Your task to perform on an android device: turn off notifications settings in the gmail app Image 0: 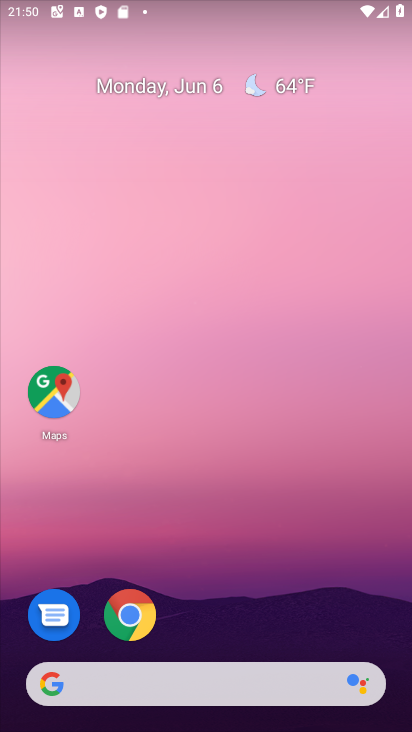
Step 0: drag from (380, 616) to (340, 39)
Your task to perform on an android device: turn off notifications settings in the gmail app Image 1: 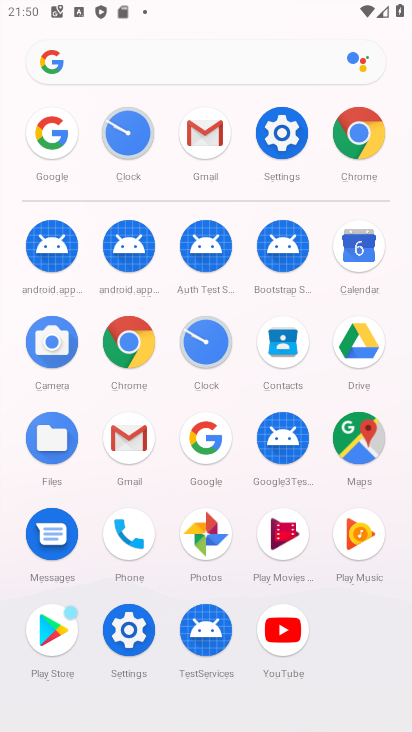
Step 1: click (208, 146)
Your task to perform on an android device: turn off notifications settings in the gmail app Image 2: 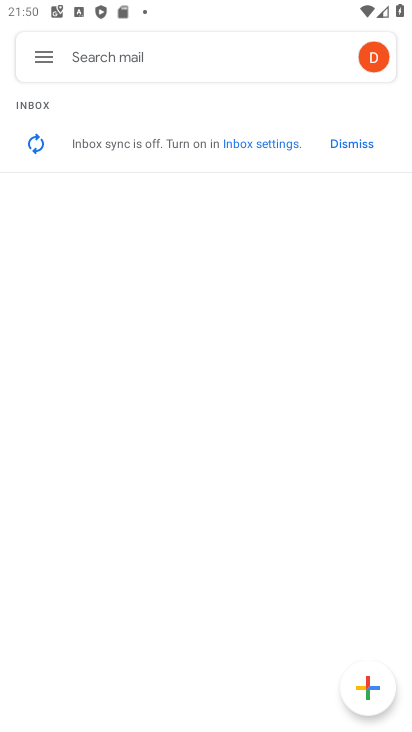
Step 2: click (38, 55)
Your task to perform on an android device: turn off notifications settings in the gmail app Image 3: 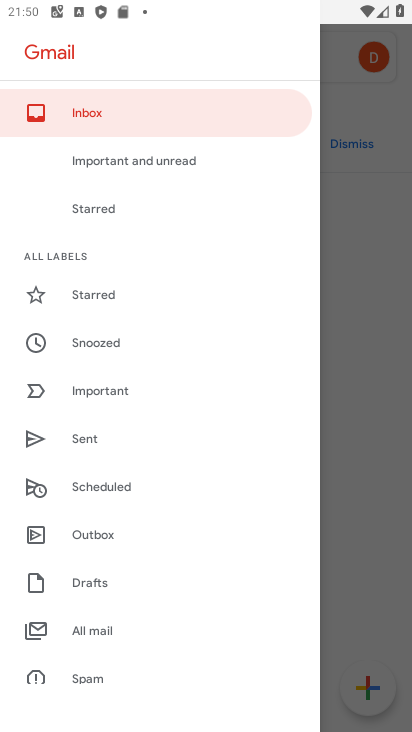
Step 3: drag from (189, 675) to (191, 104)
Your task to perform on an android device: turn off notifications settings in the gmail app Image 4: 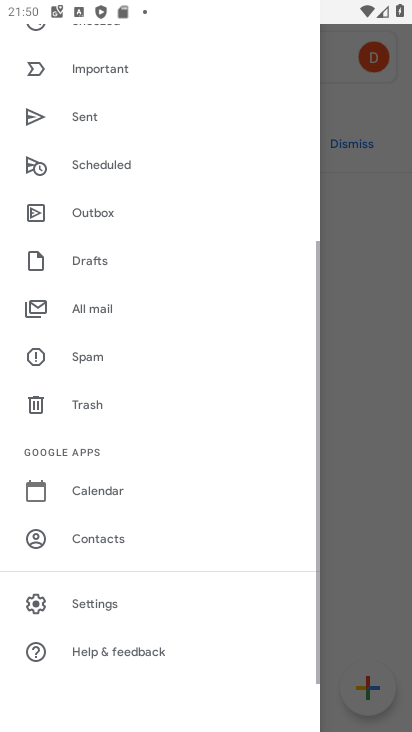
Step 4: click (104, 599)
Your task to perform on an android device: turn off notifications settings in the gmail app Image 5: 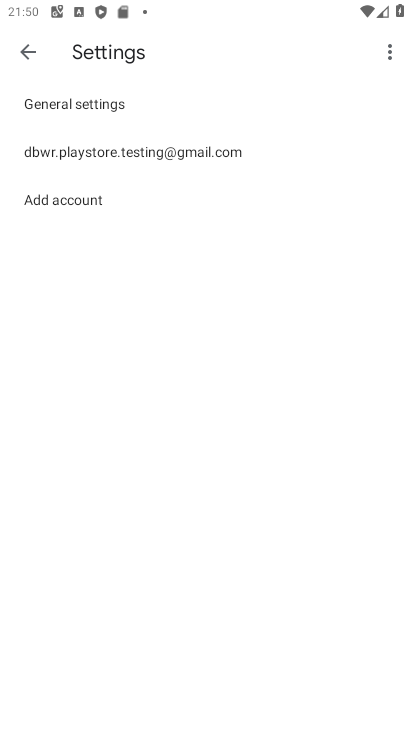
Step 5: click (64, 151)
Your task to perform on an android device: turn off notifications settings in the gmail app Image 6: 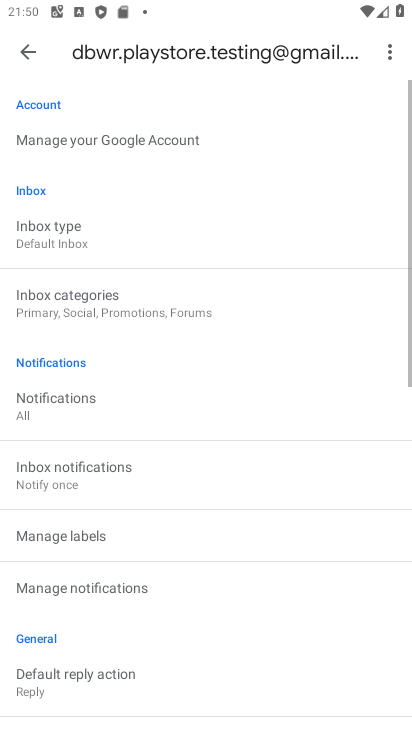
Step 6: click (25, 53)
Your task to perform on an android device: turn off notifications settings in the gmail app Image 7: 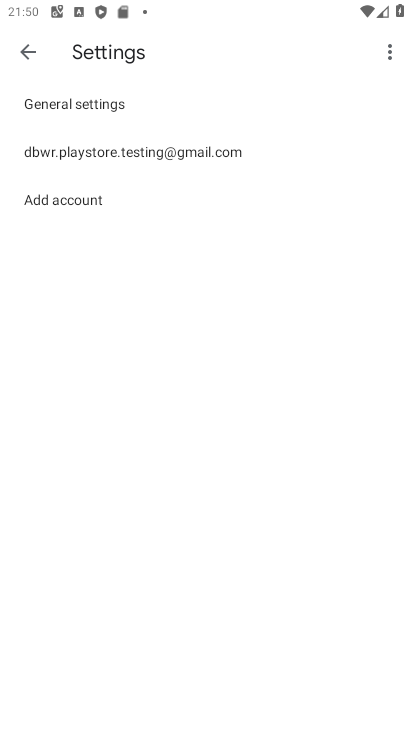
Step 7: click (56, 109)
Your task to perform on an android device: turn off notifications settings in the gmail app Image 8: 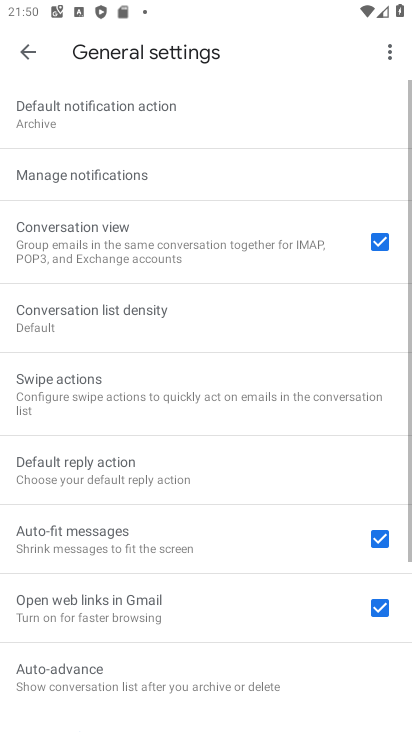
Step 8: click (82, 180)
Your task to perform on an android device: turn off notifications settings in the gmail app Image 9: 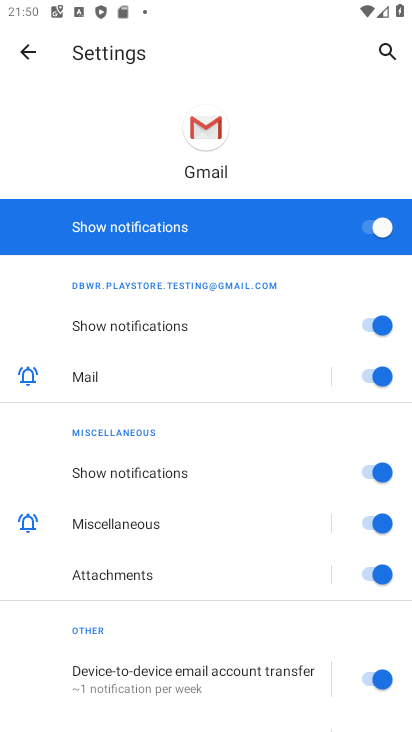
Step 9: click (363, 227)
Your task to perform on an android device: turn off notifications settings in the gmail app Image 10: 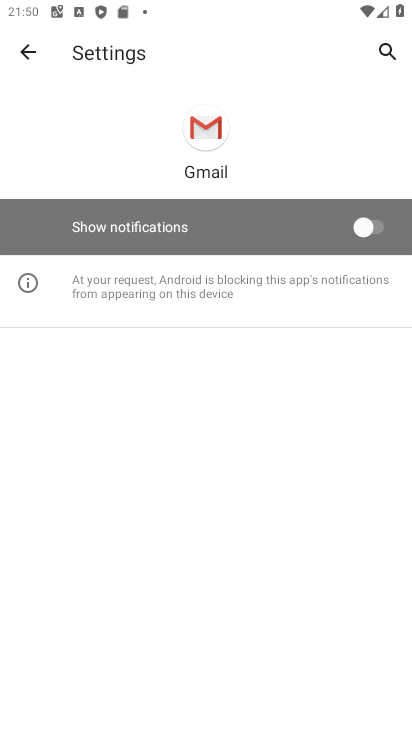
Step 10: task complete